Your task to perform on an android device: turn on the 24-hour format for clock Image 0: 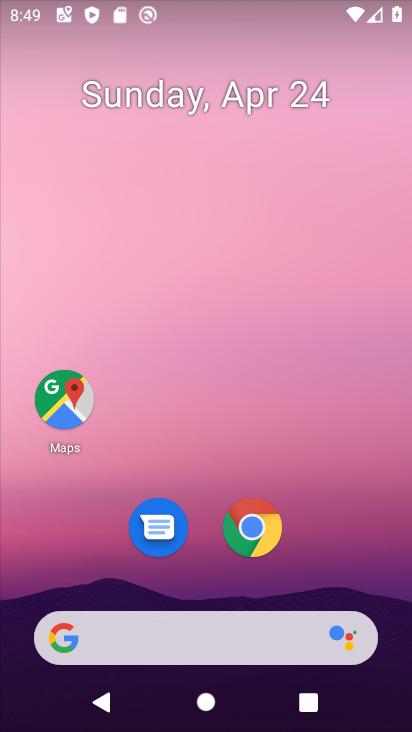
Step 0: drag from (380, 594) to (404, 29)
Your task to perform on an android device: turn on the 24-hour format for clock Image 1: 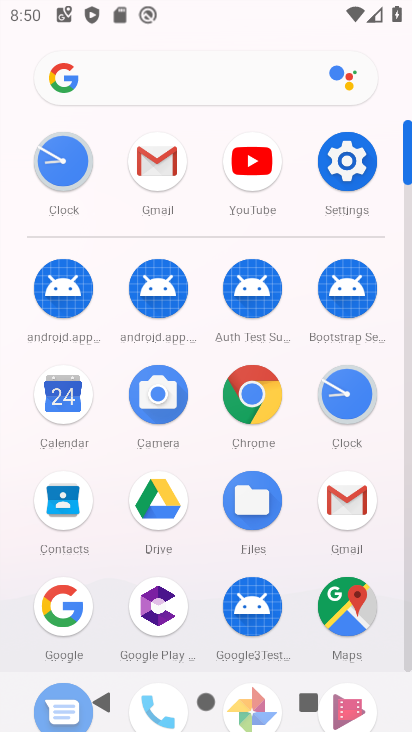
Step 1: click (344, 167)
Your task to perform on an android device: turn on the 24-hour format for clock Image 2: 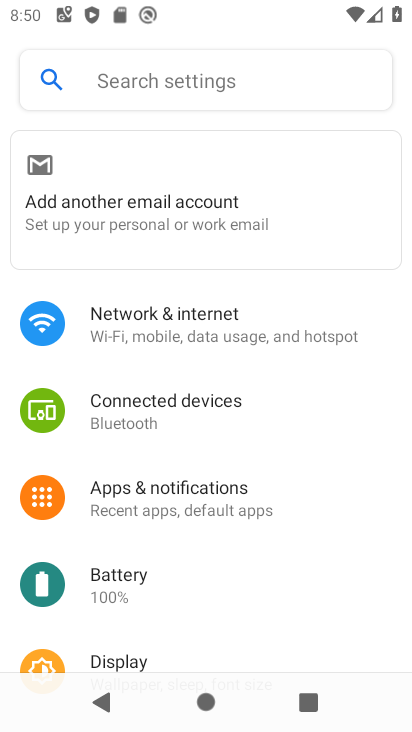
Step 2: press back button
Your task to perform on an android device: turn on the 24-hour format for clock Image 3: 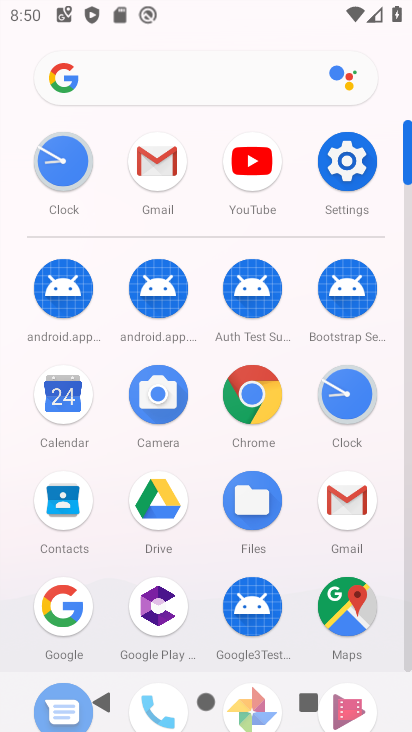
Step 3: click (76, 164)
Your task to perform on an android device: turn on the 24-hour format for clock Image 4: 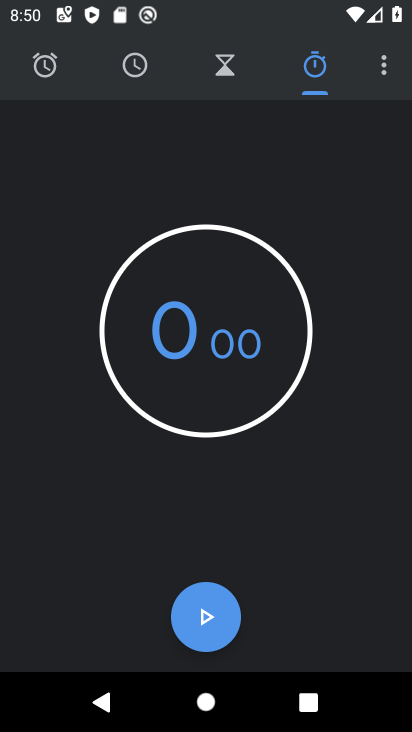
Step 4: click (389, 72)
Your task to perform on an android device: turn on the 24-hour format for clock Image 5: 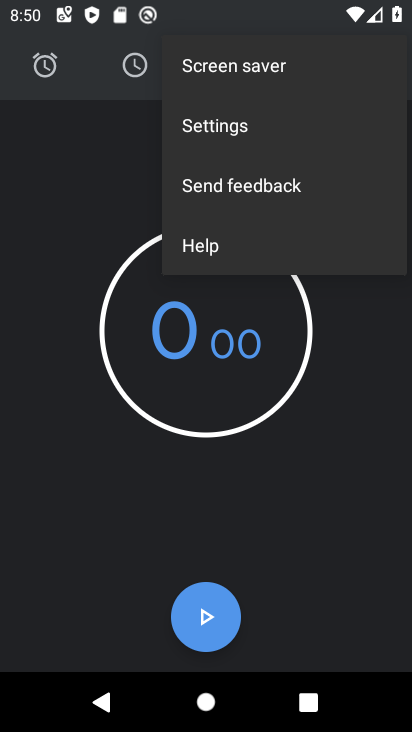
Step 5: click (206, 131)
Your task to perform on an android device: turn on the 24-hour format for clock Image 6: 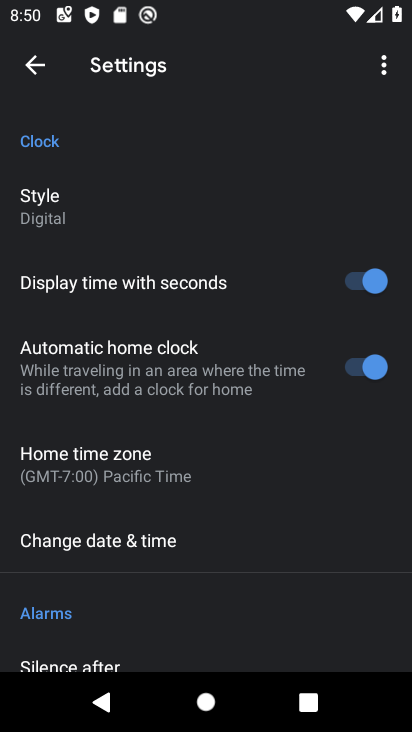
Step 6: drag from (282, 533) to (301, 286)
Your task to perform on an android device: turn on the 24-hour format for clock Image 7: 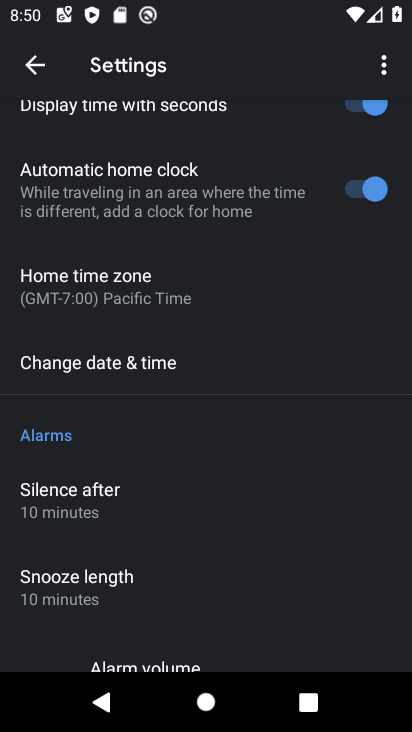
Step 7: click (145, 361)
Your task to perform on an android device: turn on the 24-hour format for clock Image 8: 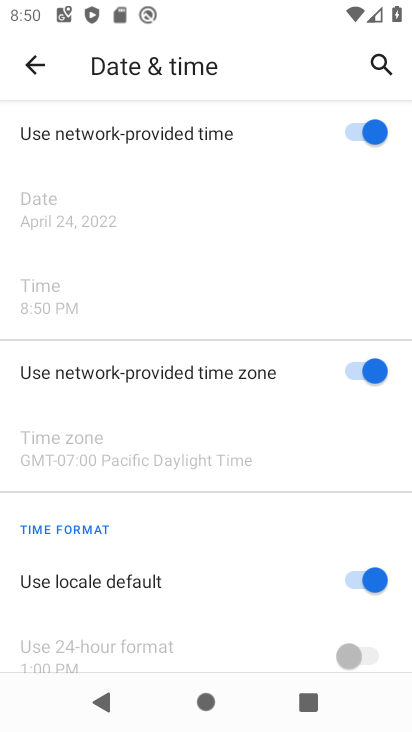
Step 8: drag from (258, 521) to (224, 166)
Your task to perform on an android device: turn on the 24-hour format for clock Image 9: 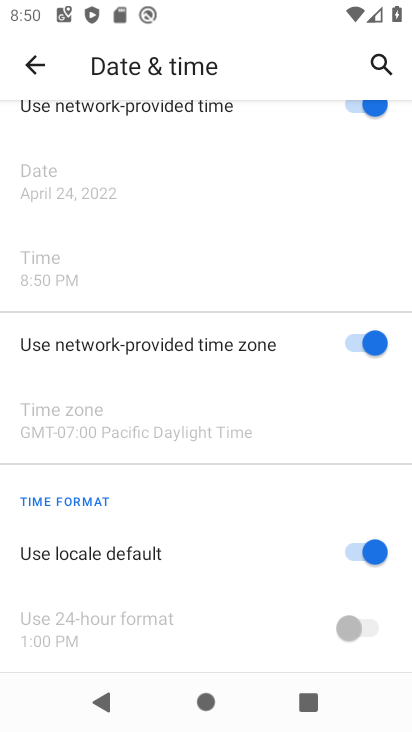
Step 9: click (371, 548)
Your task to perform on an android device: turn on the 24-hour format for clock Image 10: 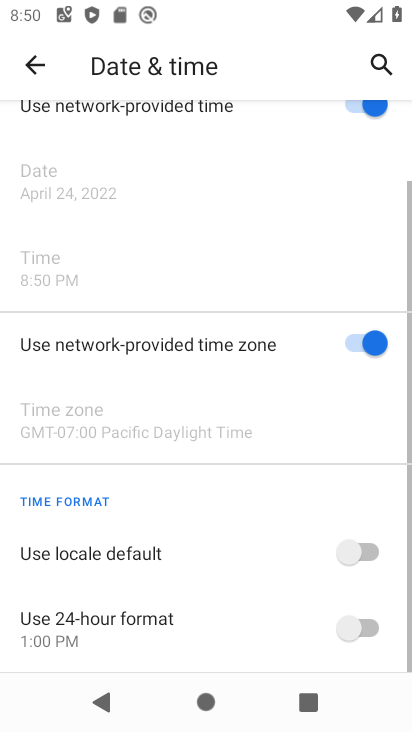
Step 10: click (359, 635)
Your task to perform on an android device: turn on the 24-hour format for clock Image 11: 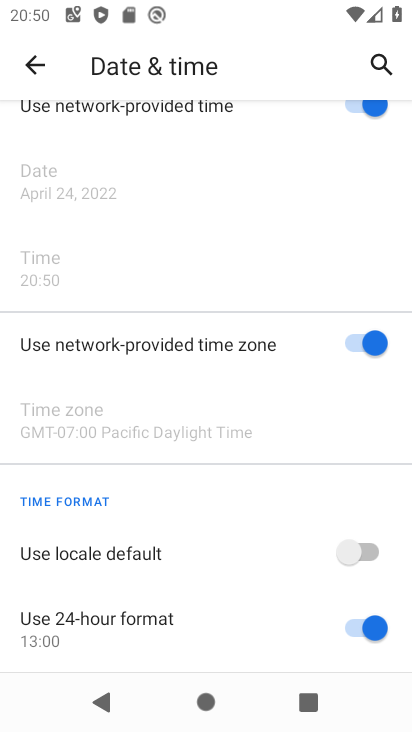
Step 11: task complete